Your task to perform on an android device: install app "DoorDash - Dasher" Image 0: 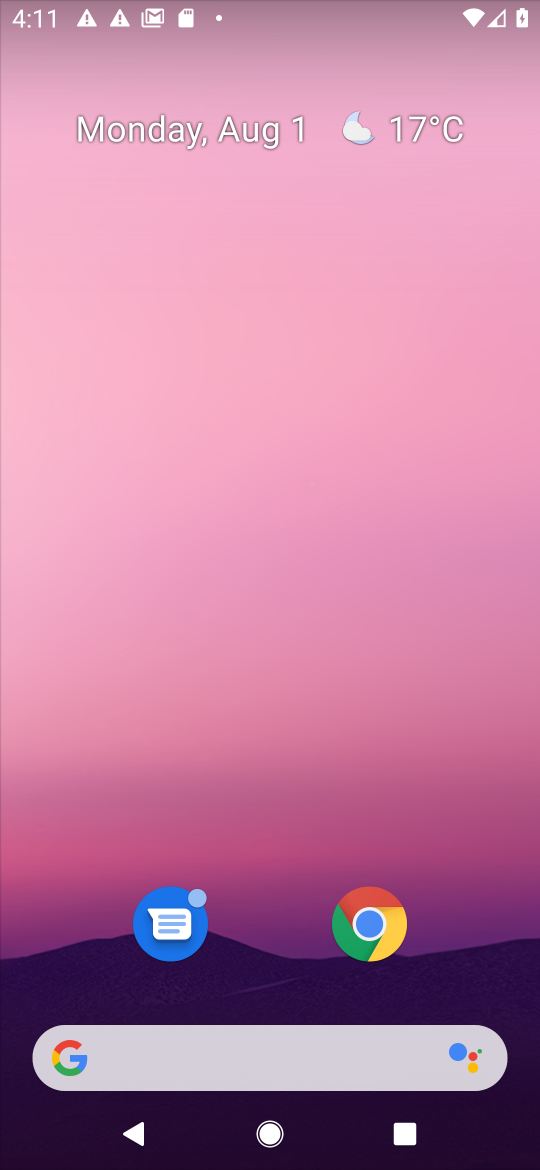
Step 0: drag from (310, 1166) to (310, 138)
Your task to perform on an android device: install app "DoorDash - Dasher" Image 1: 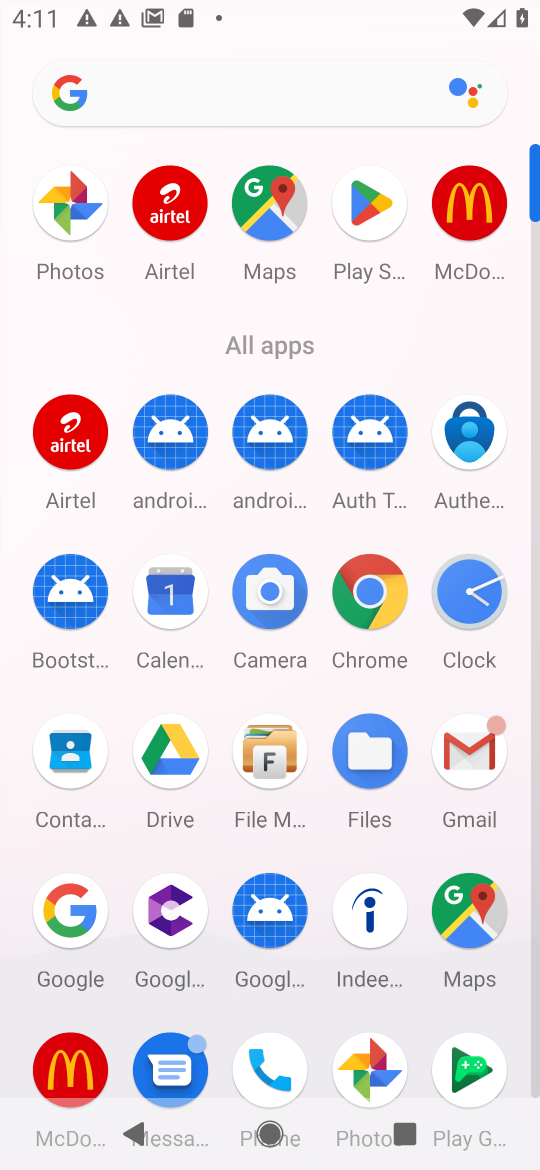
Step 1: click (362, 201)
Your task to perform on an android device: install app "DoorDash - Dasher" Image 2: 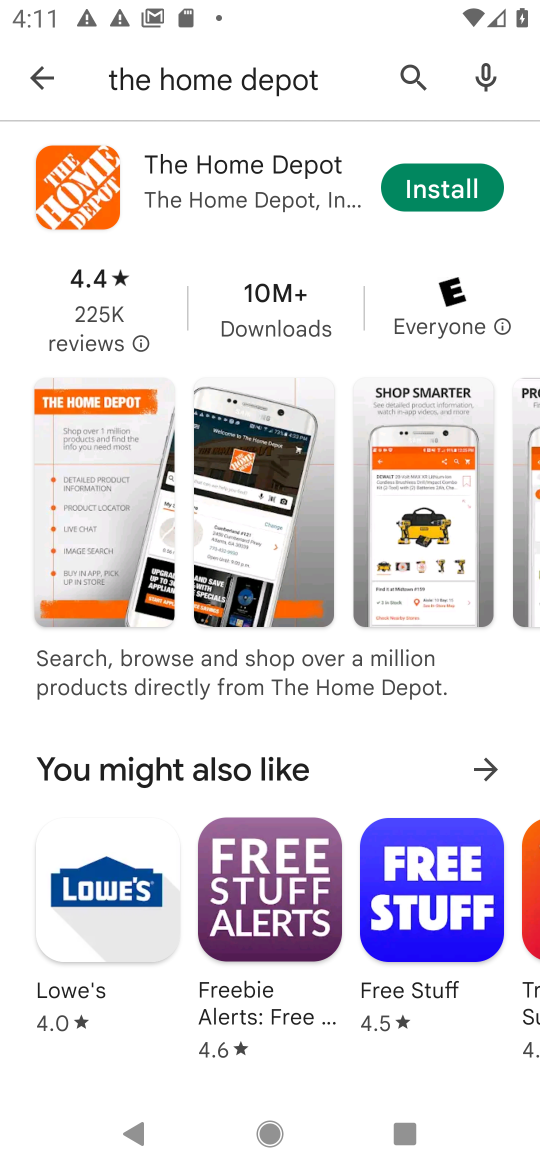
Step 2: click (405, 74)
Your task to perform on an android device: install app "DoorDash - Dasher" Image 3: 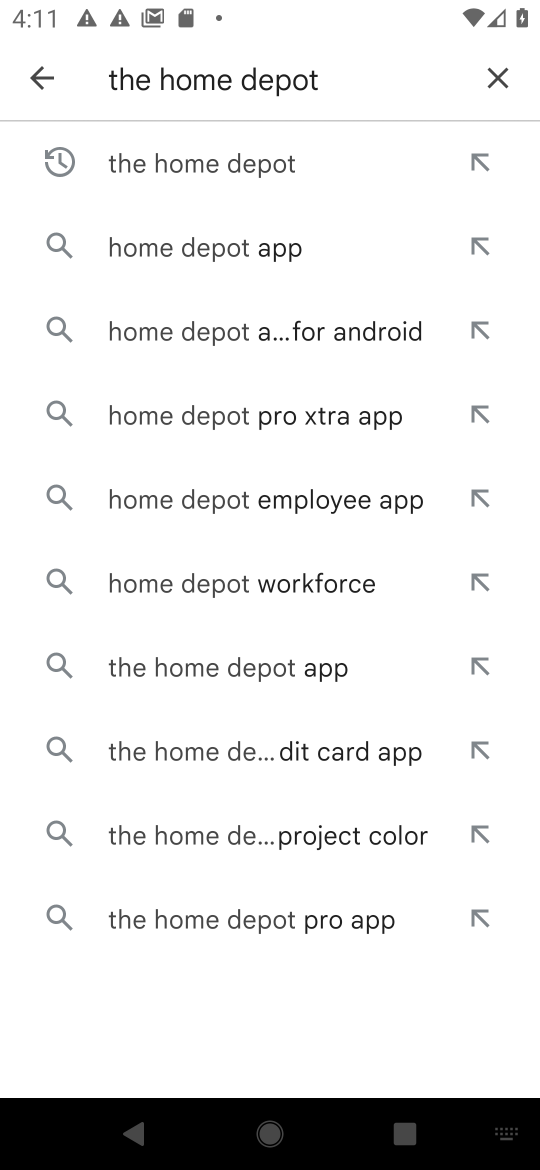
Step 3: click (496, 74)
Your task to perform on an android device: install app "DoorDash - Dasher" Image 4: 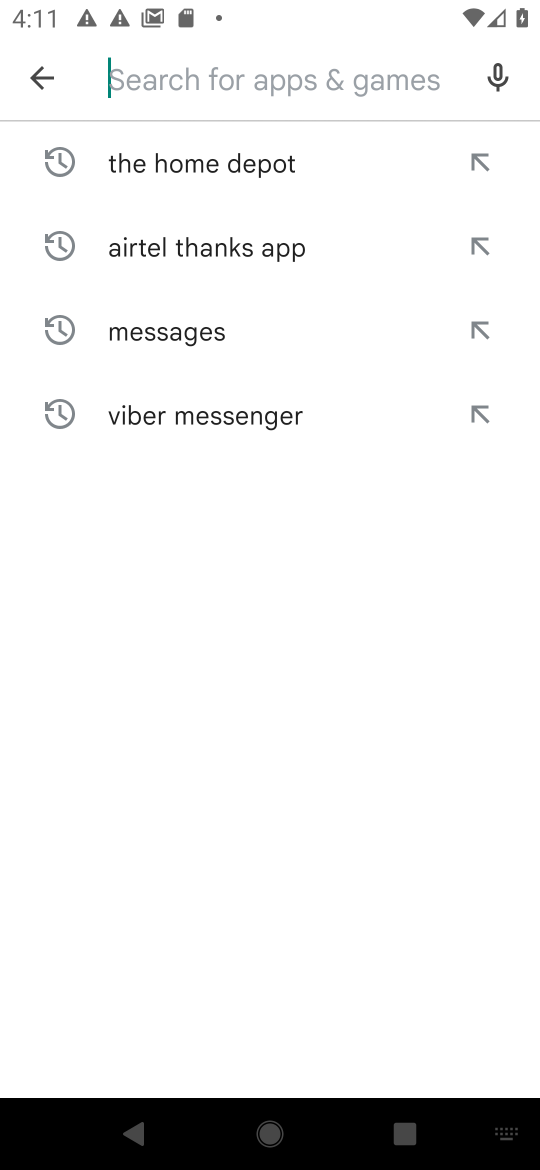
Step 4: type "DoorDash - Dasher"
Your task to perform on an android device: install app "DoorDash - Dasher" Image 5: 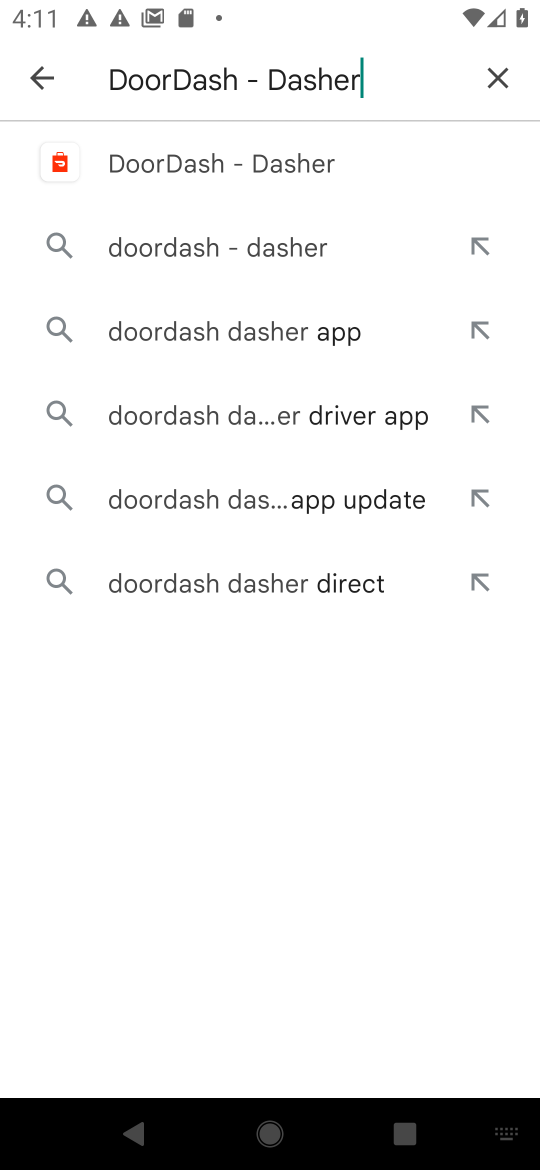
Step 5: click (294, 151)
Your task to perform on an android device: install app "DoorDash - Dasher" Image 6: 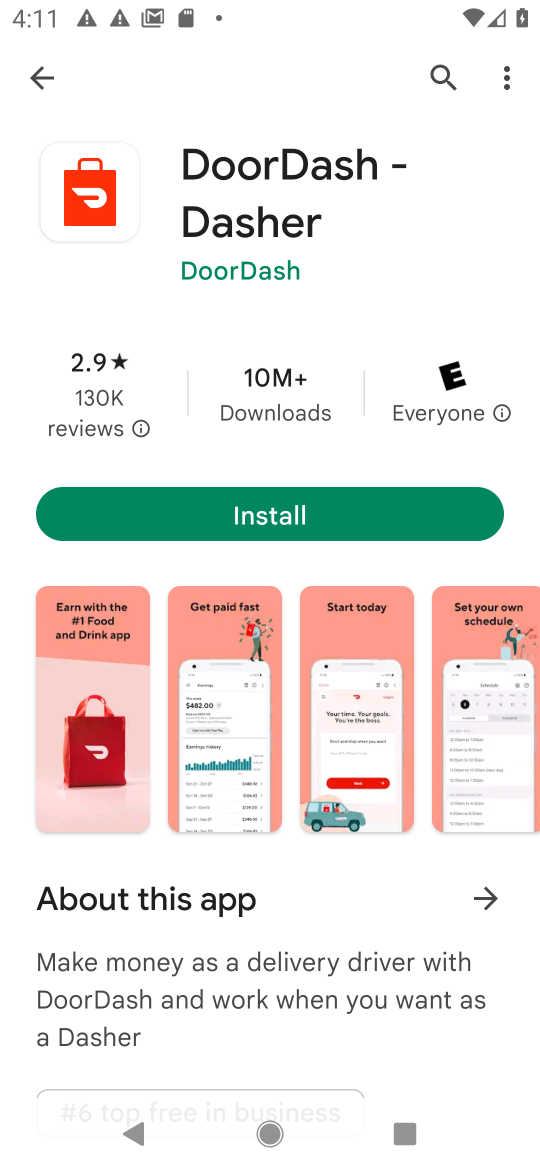
Step 6: click (284, 515)
Your task to perform on an android device: install app "DoorDash - Dasher" Image 7: 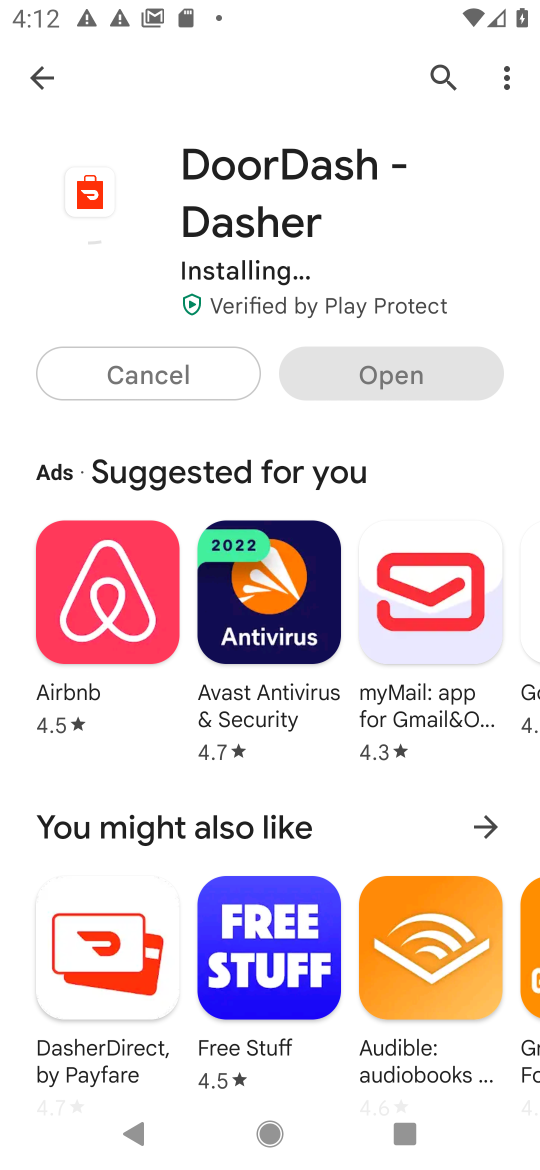
Step 7: press home button
Your task to perform on an android device: install app "DoorDash - Dasher" Image 8: 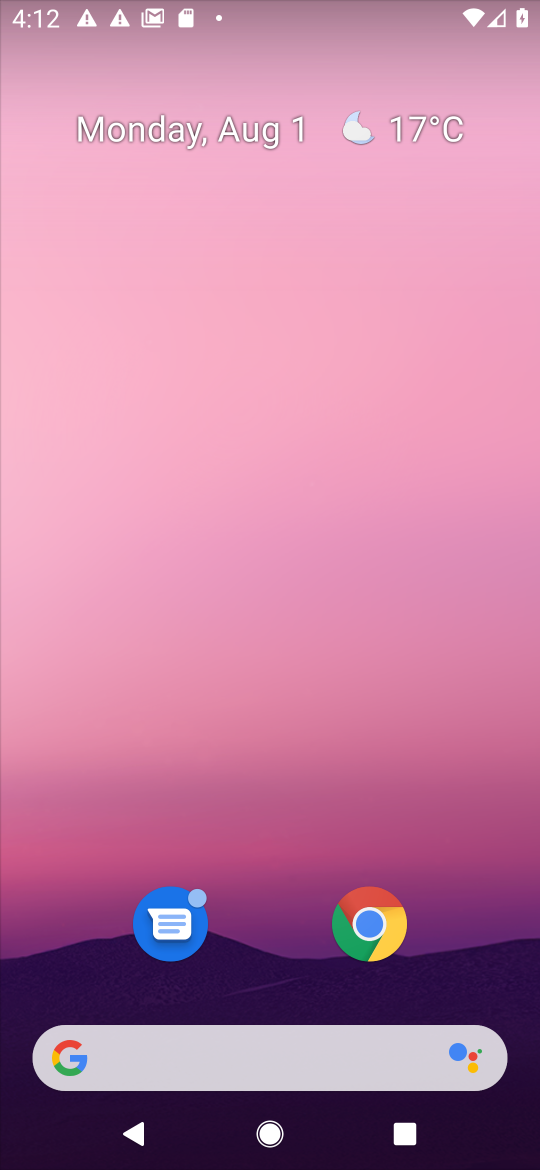
Step 8: drag from (308, 1041) to (304, 346)
Your task to perform on an android device: install app "DoorDash - Dasher" Image 9: 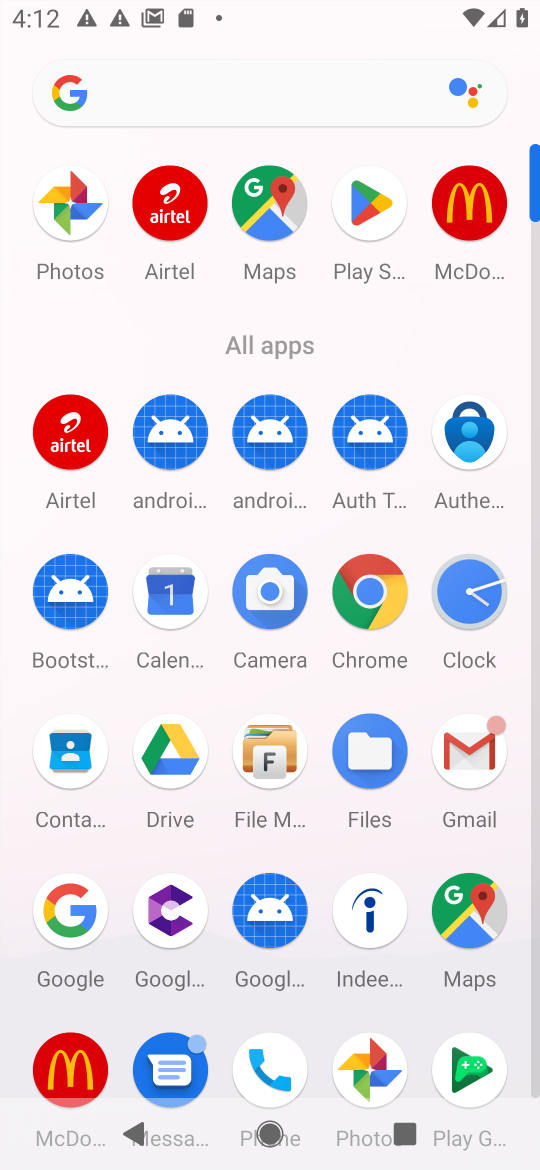
Step 9: click (369, 207)
Your task to perform on an android device: install app "DoorDash - Dasher" Image 10: 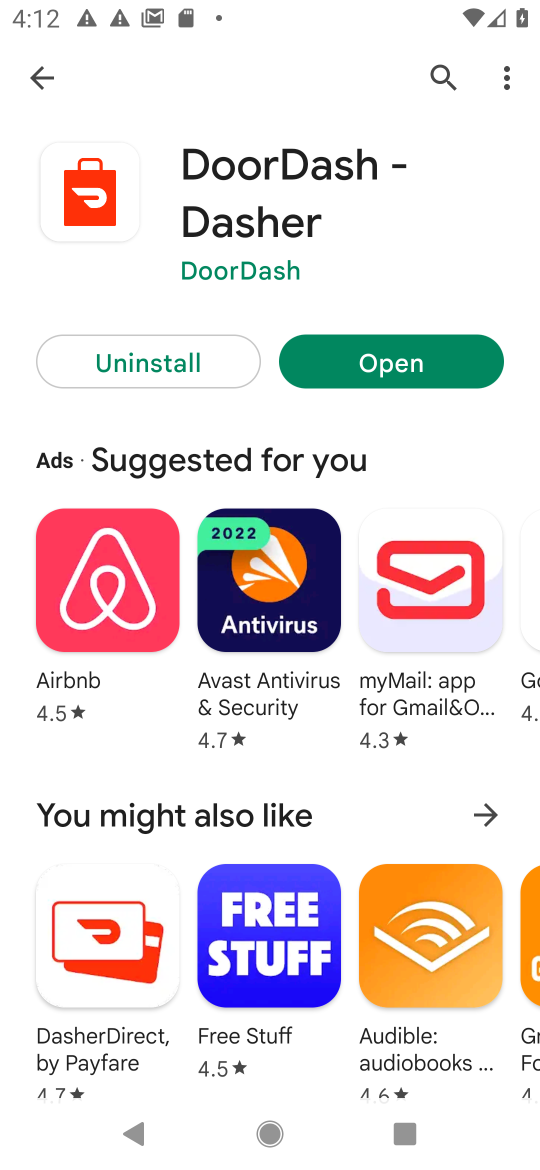
Step 10: task complete